Your task to perform on an android device: delete location history Image 0: 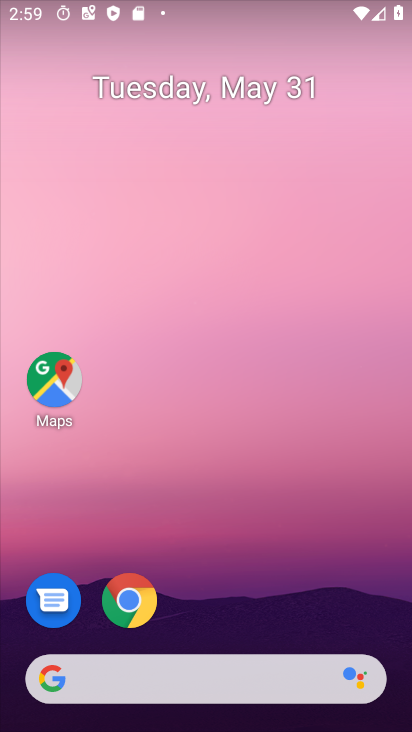
Step 0: press home button
Your task to perform on an android device: delete location history Image 1: 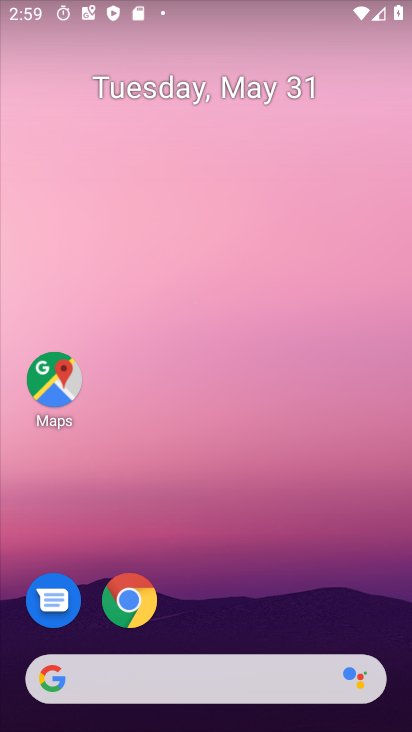
Step 1: press home button
Your task to perform on an android device: delete location history Image 2: 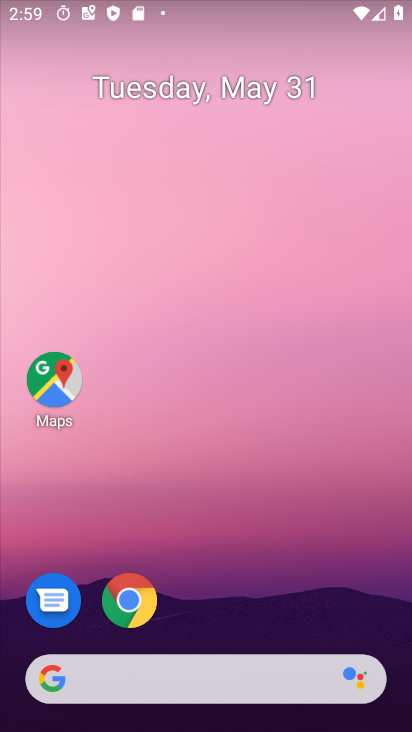
Step 2: click (58, 369)
Your task to perform on an android device: delete location history Image 3: 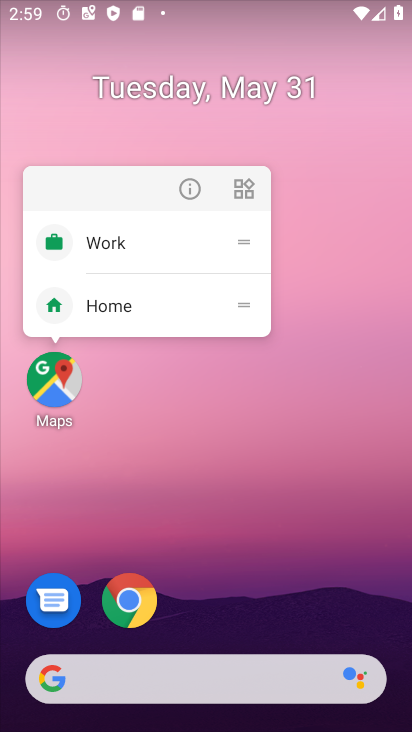
Step 3: click (56, 378)
Your task to perform on an android device: delete location history Image 4: 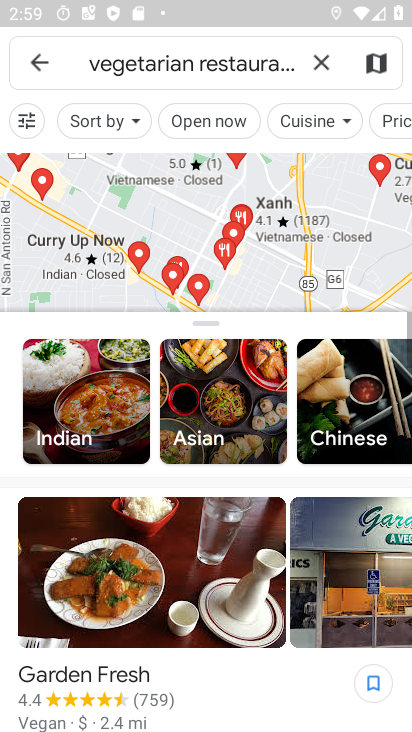
Step 4: click (33, 62)
Your task to perform on an android device: delete location history Image 5: 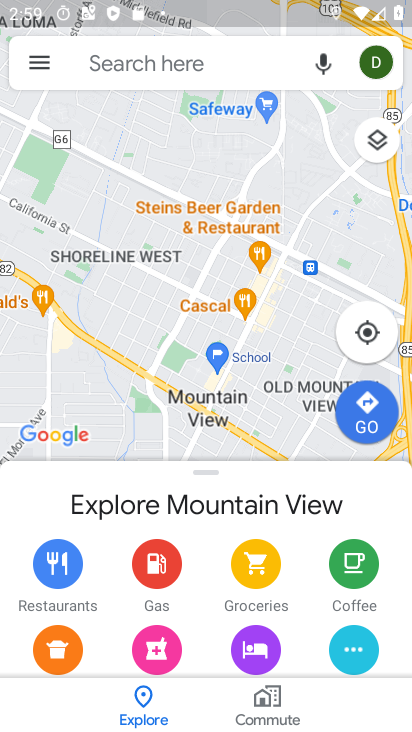
Step 5: click (32, 59)
Your task to perform on an android device: delete location history Image 6: 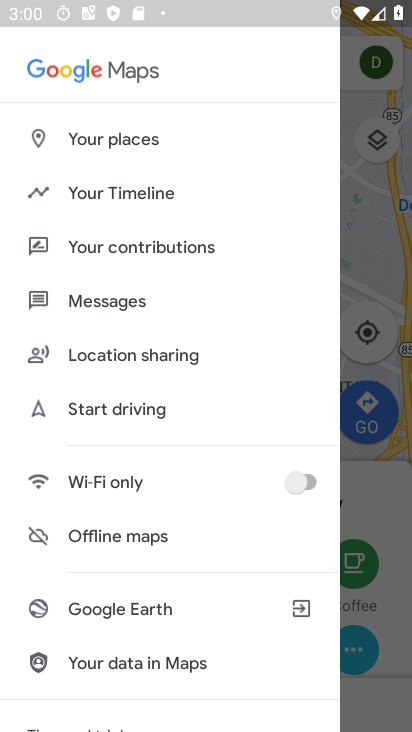
Step 6: click (189, 186)
Your task to perform on an android device: delete location history Image 7: 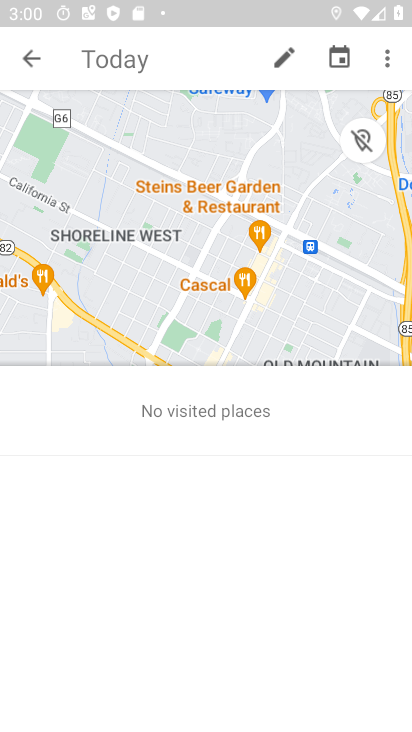
Step 7: click (390, 53)
Your task to perform on an android device: delete location history Image 8: 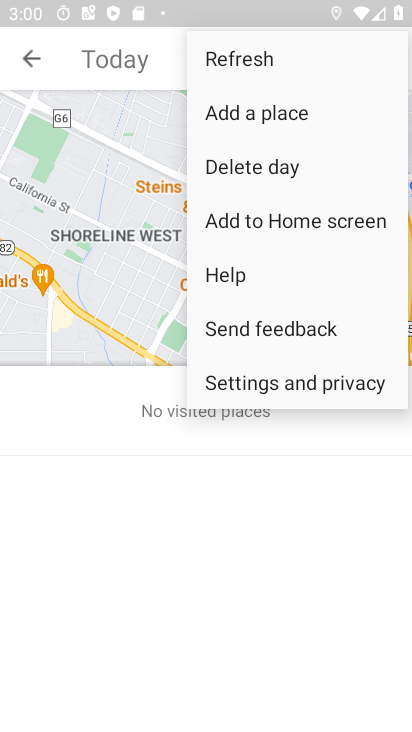
Step 8: click (327, 388)
Your task to perform on an android device: delete location history Image 9: 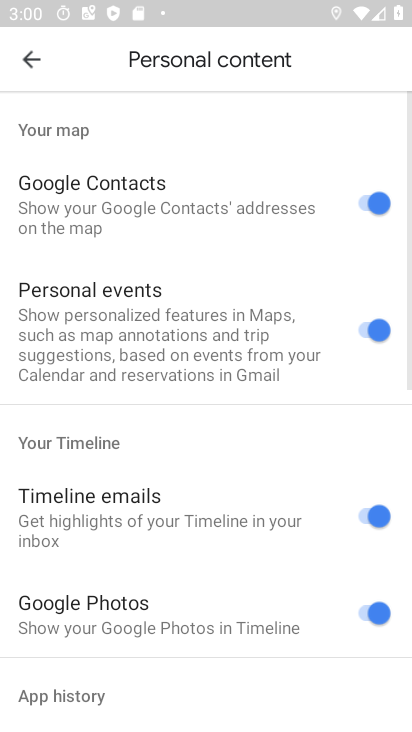
Step 9: drag from (232, 651) to (249, 287)
Your task to perform on an android device: delete location history Image 10: 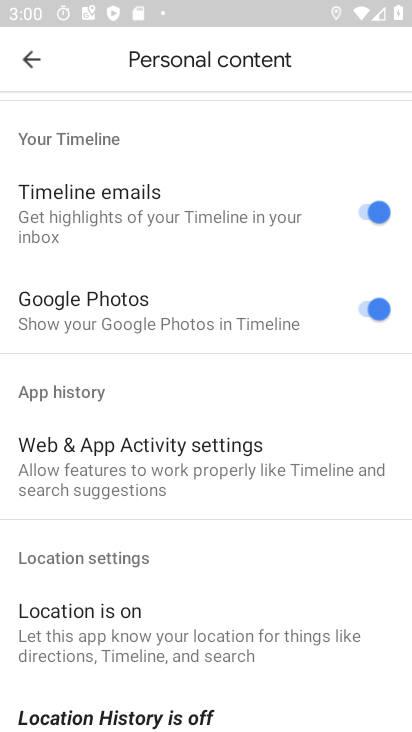
Step 10: drag from (237, 676) to (264, 175)
Your task to perform on an android device: delete location history Image 11: 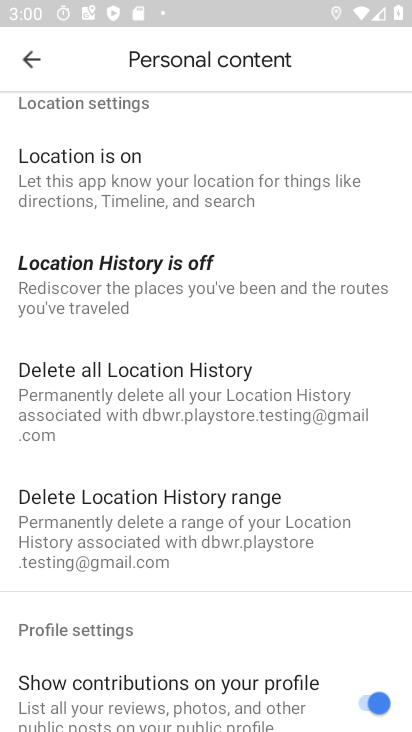
Step 11: click (284, 383)
Your task to perform on an android device: delete location history Image 12: 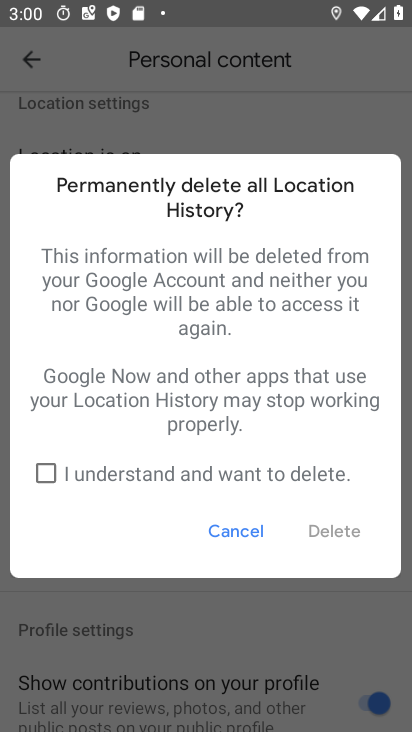
Step 12: click (46, 470)
Your task to perform on an android device: delete location history Image 13: 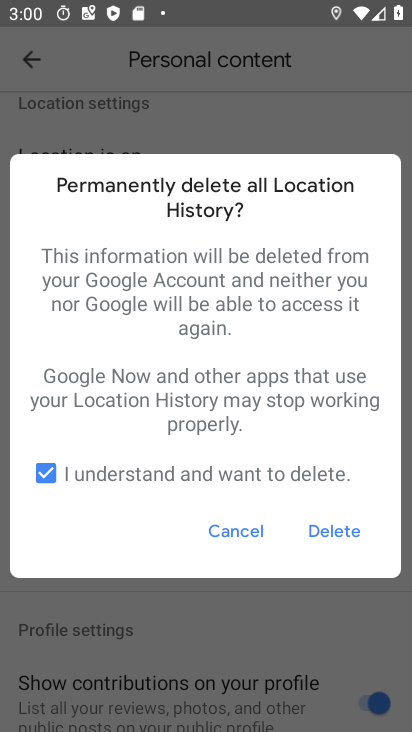
Step 13: click (337, 532)
Your task to perform on an android device: delete location history Image 14: 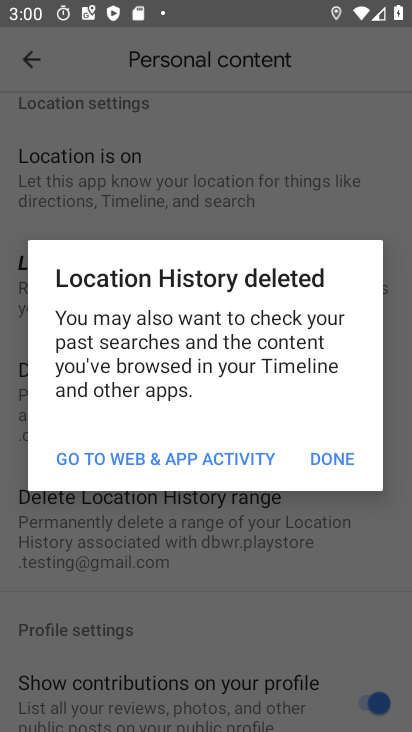
Step 14: click (329, 456)
Your task to perform on an android device: delete location history Image 15: 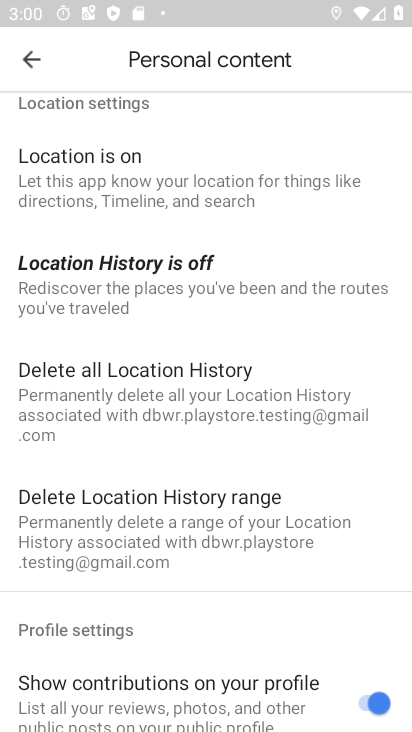
Step 15: task complete